Your task to perform on an android device: Clear the cart on costco.com. Image 0: 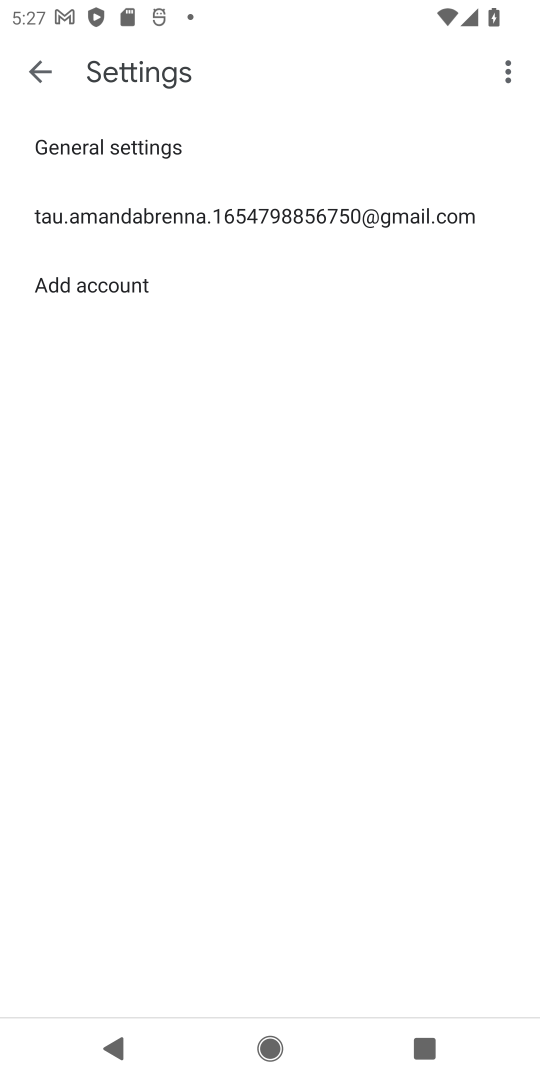
Step 0: press home button
Your task to perform on an android device: Clear the cart on costco.com. Image 1: 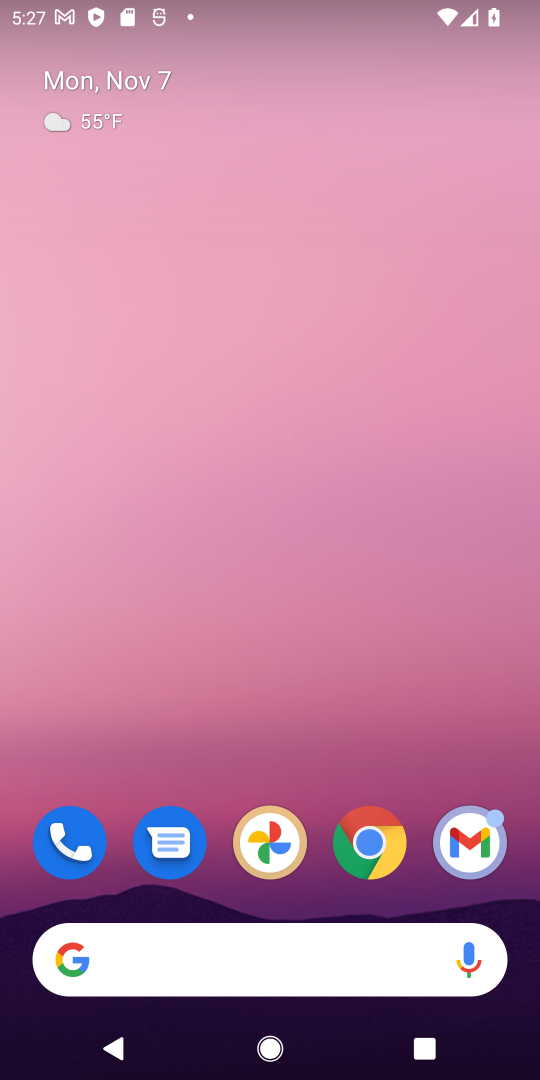
Step 1: click (375, 847)
Your task to perform on an android device: Clear the cart on costco.com. Image 2: 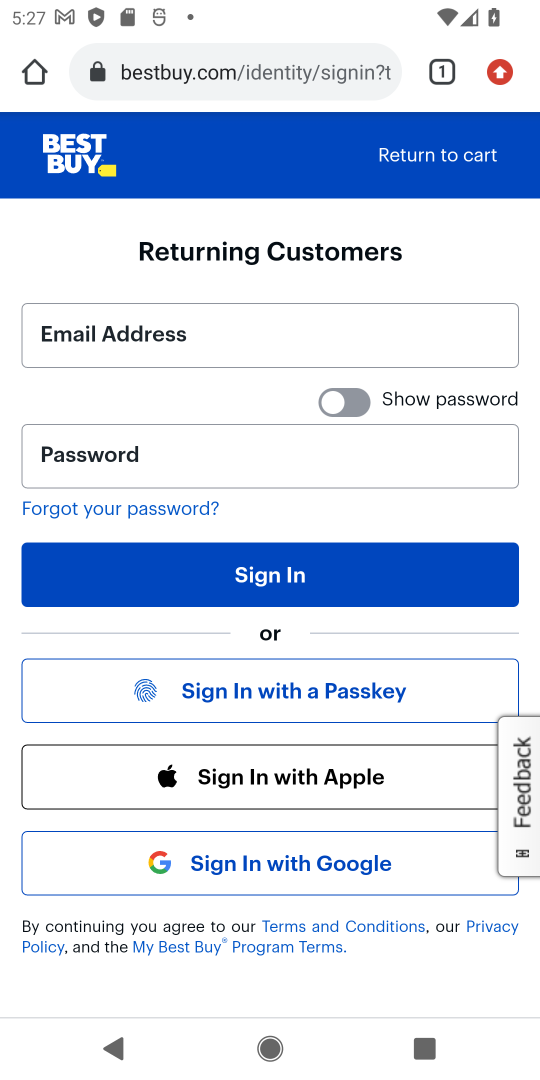
Step 2: click (329, 73)
Your task to perform on an android device: Clear the cart on costco.com. Image 3: 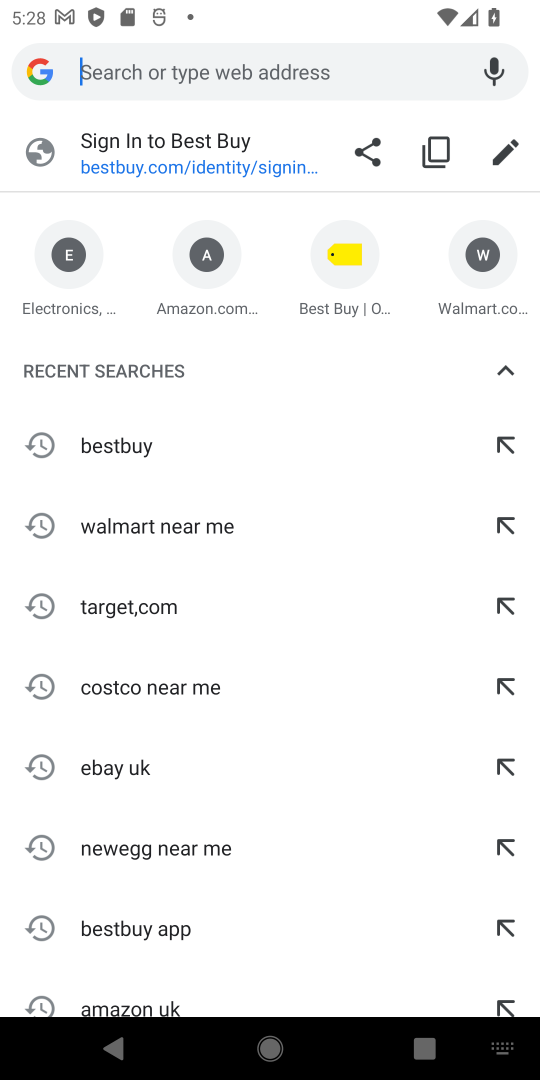
Step 3: type " costco.com"
Your task to perform on an android device: Clear the cart on costco.com. Image 4: 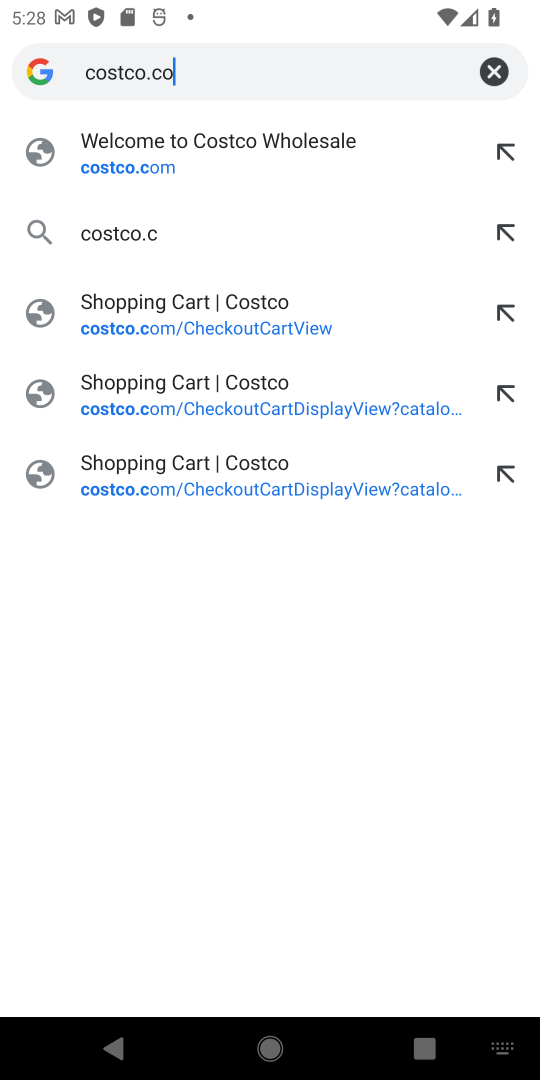
Step 4: press enter
Your task to perform on an android device: Clear the cart on costco.com. Image 5: 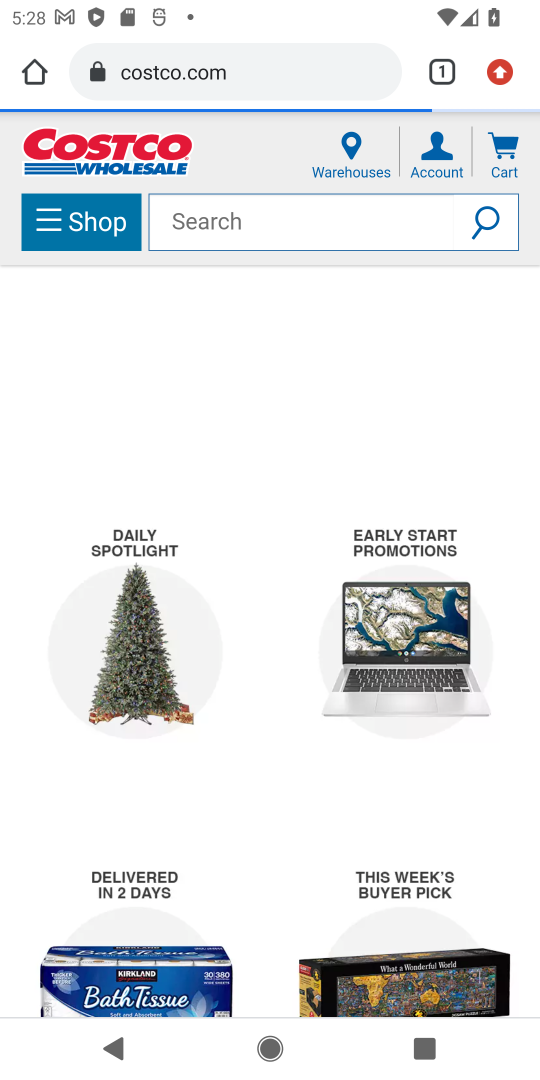
Step 5: click (317, 225)
Your task to perform on an android device: Clear the cart on costco.com. Image 6: 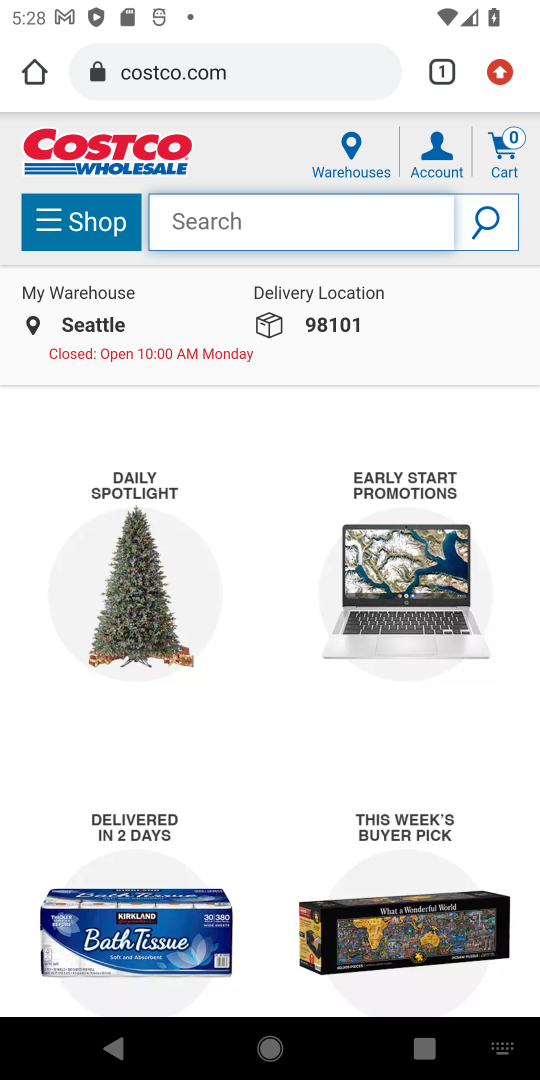
Step 6: click (510, 145)
Your task to perform on an android device: Clear the cart on costco.com. Image 7: 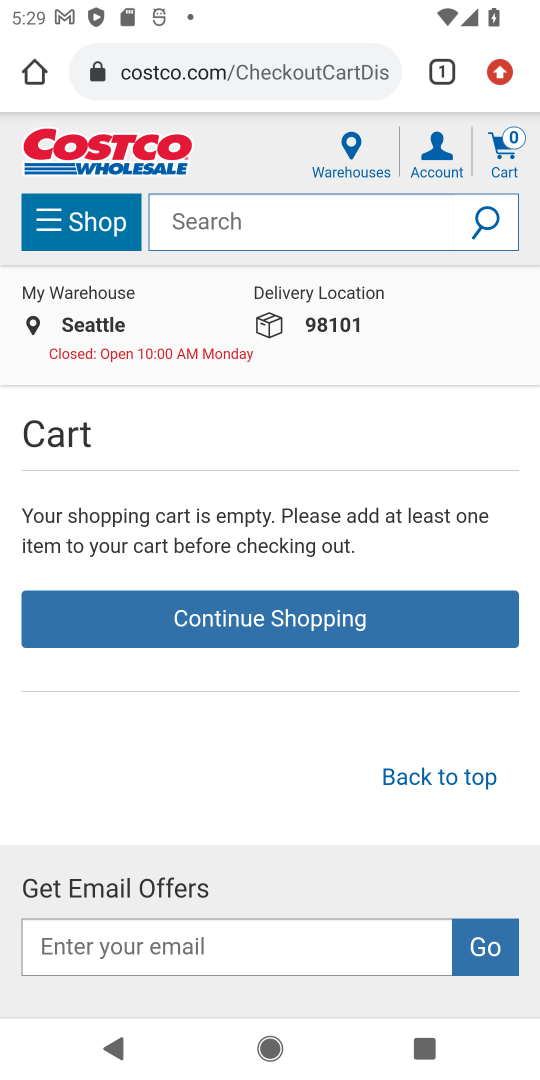
Step 7: task complete